Your task to perform on an android device: turn smart compose on in the gmail app Image 0: 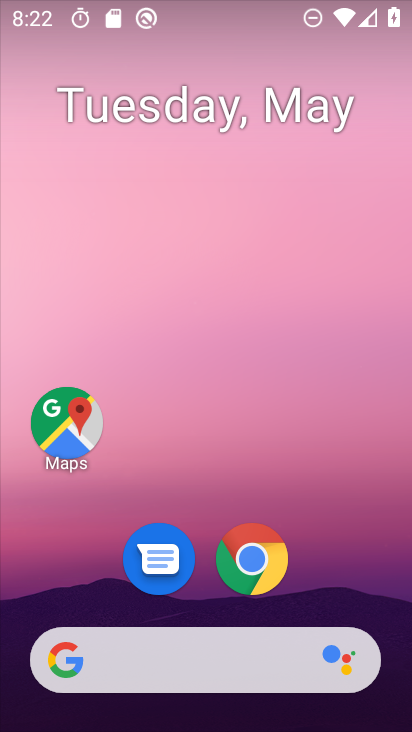
Step 0: click (288, 59)
Your task to perform on an android device: turn smart compose on in the gmail app Image 1: 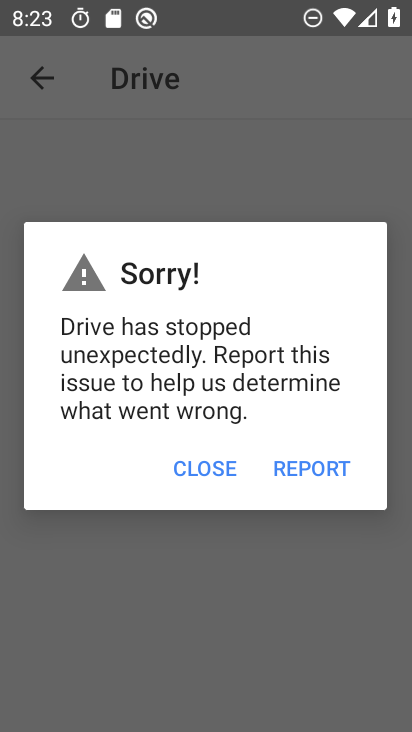
Step 1: press home button
Your task to perform on an android device: turn smart compose on in the gmail app Image 2: 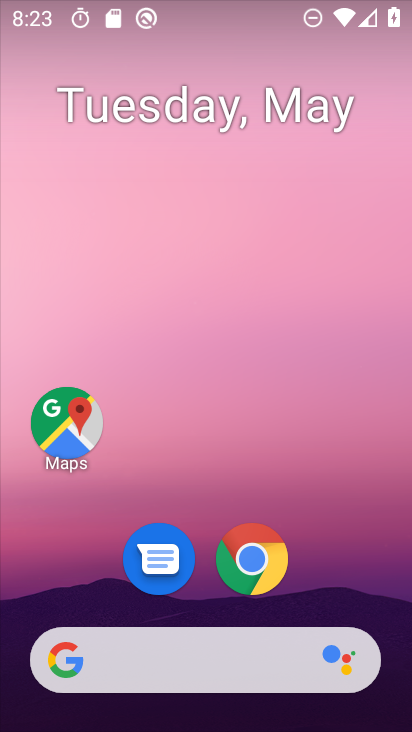
Step 2: drag from (392, 656) to (178, 60)
Your task to perform on an android device: turn smart compose on in the gmail app Image 3: 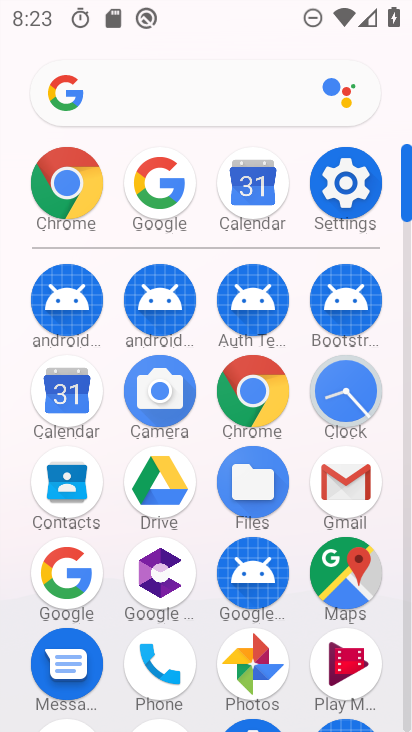
Step 3: click (332, 494)
Your task to perform on an android device: turn smart compose on in the gmail app Image 4: 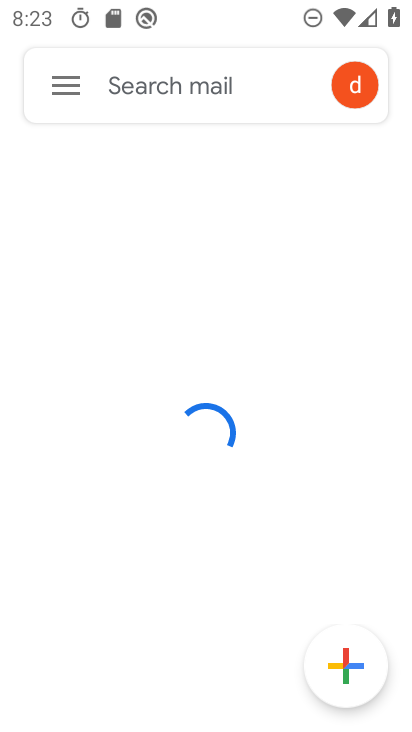
Step 4: click (72, 83)
Your task to perform on an android device: turn smart compose on in the gmail app Image 5: 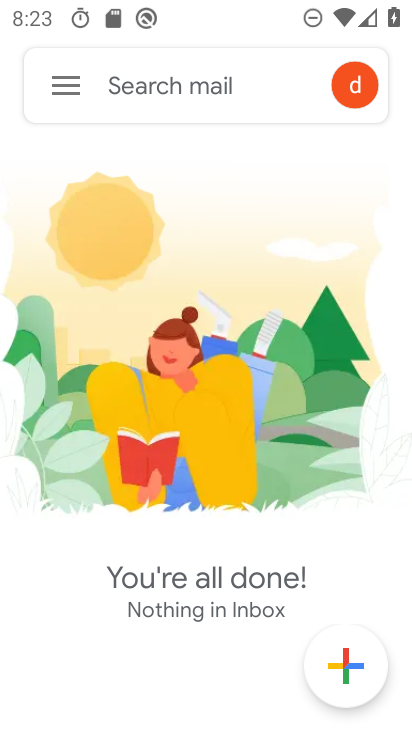
Step 5: click (63, 91)
Your task to perform on an android device: turn smart compose on in the gmail app Image 6: 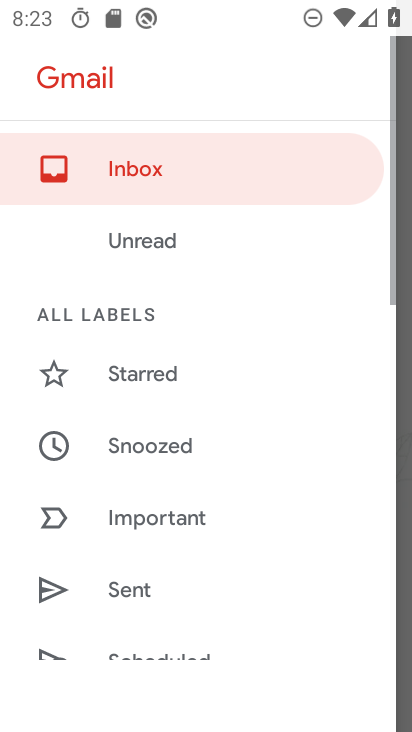
Step 6: drag from (200, 620) to (204, 8)
Your task to perform on an android device: turn smart compose on in the gmail app Image 7: 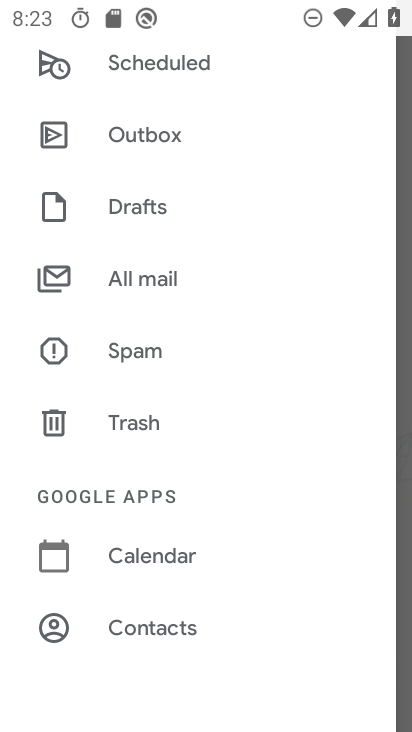
Step 7: drag from (206, 613) to (242, 91)
Your task to perform on an android device: turn smart compose on in the gmail app Image 8: 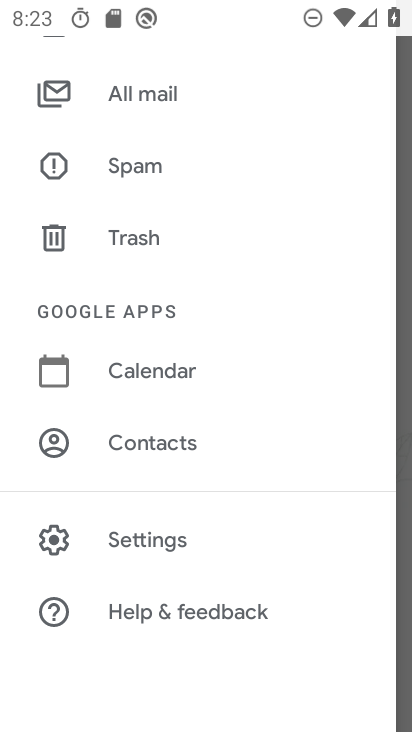
Step 8: click (197, 553)
Your task to perform on an android device: turn smart compose on in the gmail app Image 9: 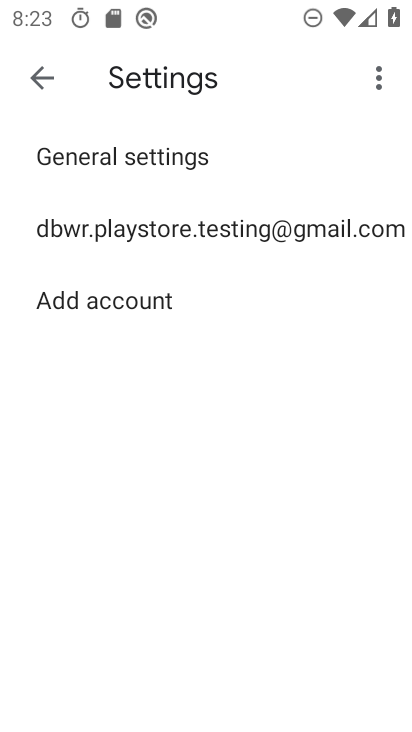
Step 9: click (235, 253)
Your task to perform on an android device: turn smart compose on in the gmail app Image 10: 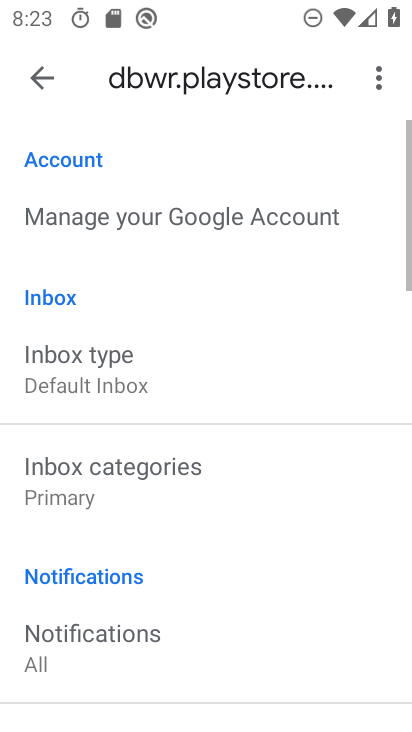
Step 10: task complete